Your task to perform on an android device: Do I have any events today? Image 0: 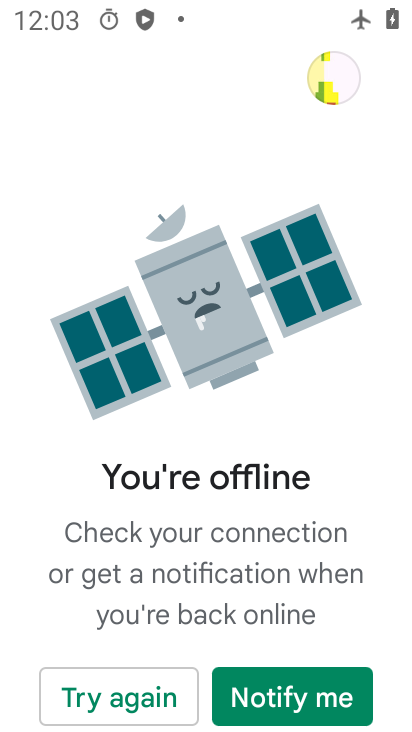
Step 0: click (145, 695)
Your task to perform on an android device: Do I have any events today? Image 1: 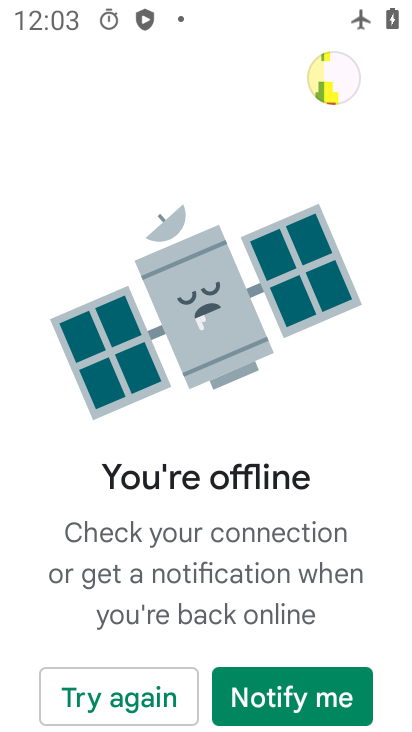
Step 1: press home button
Your task to perform on an android device: Do I have any events today? Image 2: 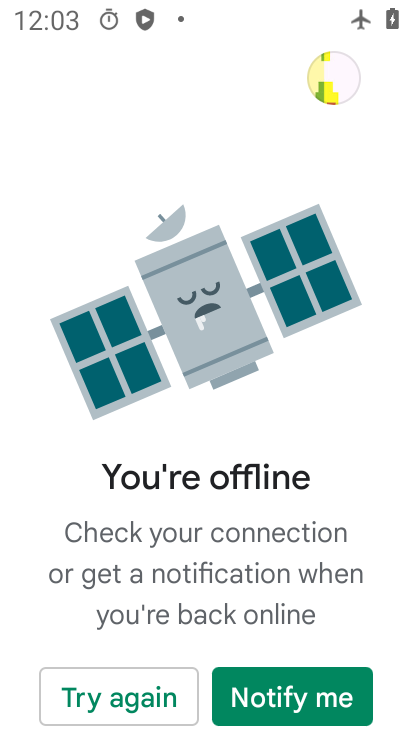
Step 2: press home button
Your task to perform on an android device: Do I have any events today? Image 3: 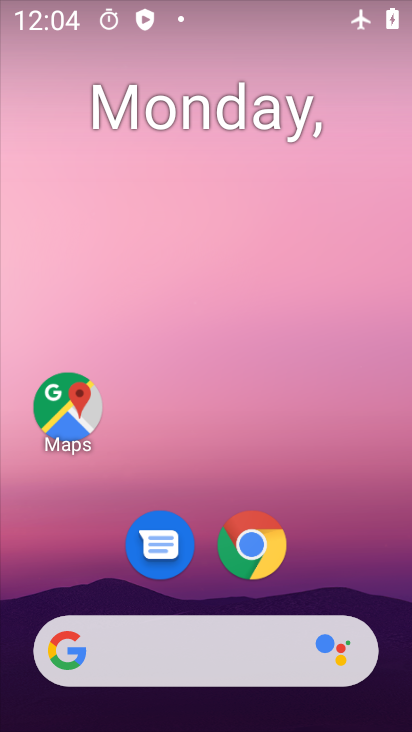
Step 3: drag from (210, 548) to (203, 113)
Your task to perform on an android device: Do I have any events today? Image 4: 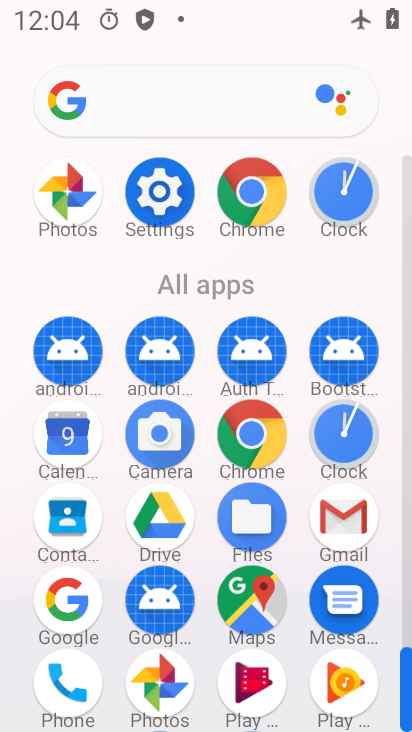
Step 4: click (64, 433)
Your task to perform on an android device: Do I have any events today? Image 5: 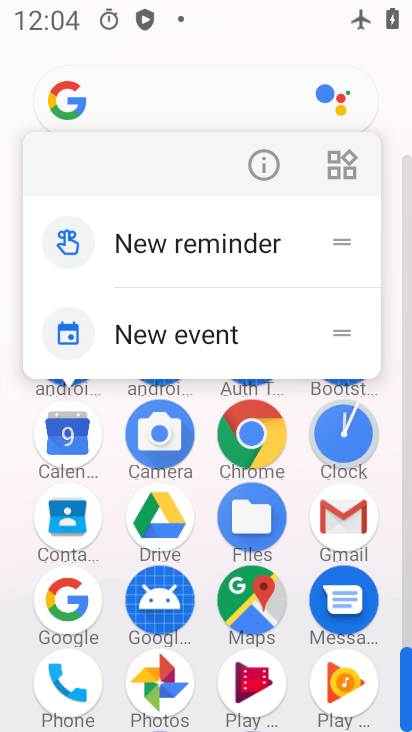
Step 5: click (262, 158)
Your task to perform on an android device: Do I have any events today? Image 6: 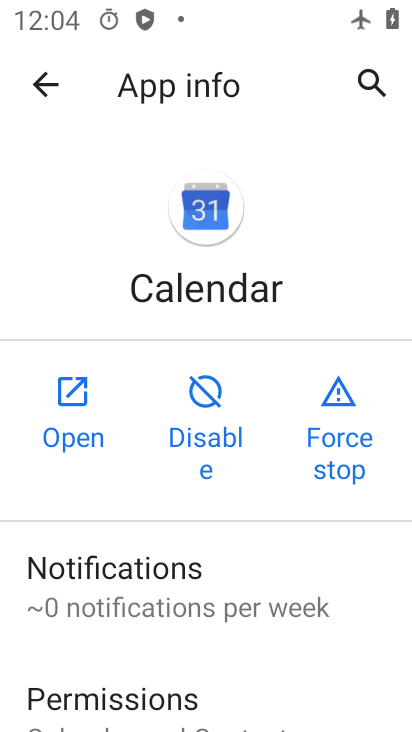
Step 6: click (76, 416)
Your task to perform on an android device: Do I have any events today? Image 7: 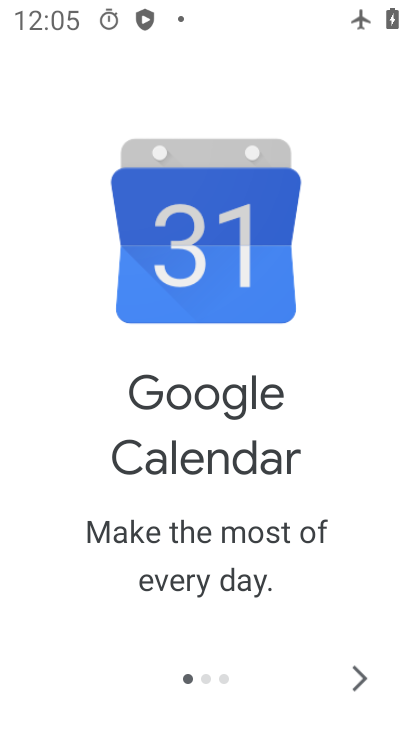
Step 7: click (370, 673)
Your task to perform on an android device: Do I have any events today? Image 8: 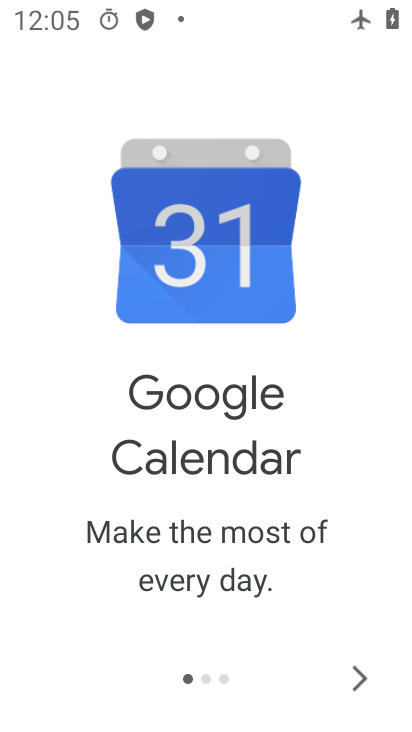
Step 8: click (355, 670)
Your task to perform on an android device: Do I have any events today? Image 9: 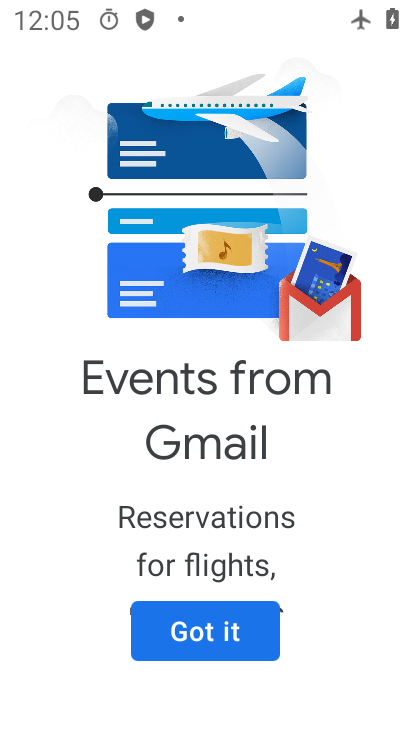
Step 9: click (222, 644)
Your task to perform on an android device: Do I have any events today? Image 10: 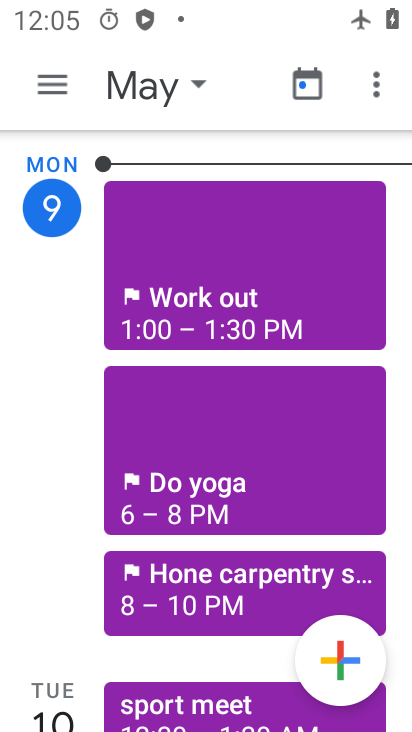
Step 10: click (159, 94)
Your task to perform on an android device: Do I have any events today? Image 11: 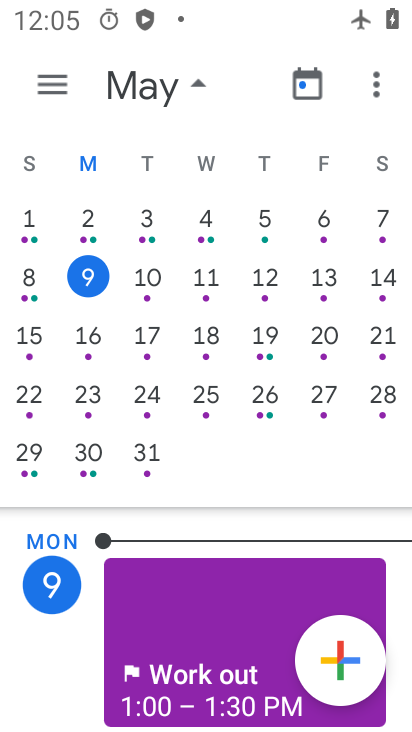
Step 11: click (89, 287)
Your task to perform on an android device: Do I have any events today? Image 12: 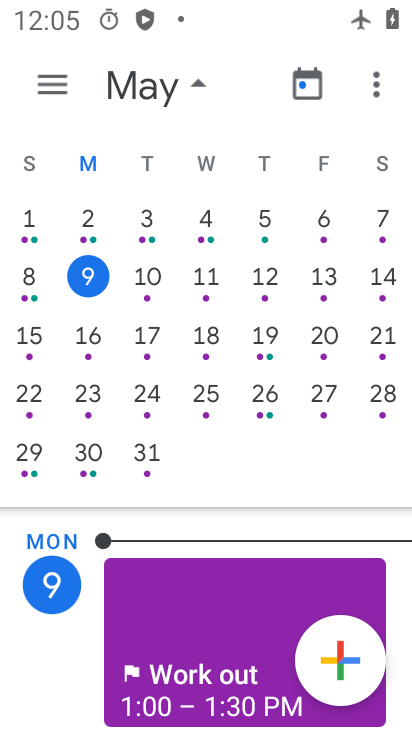
Step 12: task complete